Your task to perform on an android device: toggle priority inbox in the gmail app Image 0: 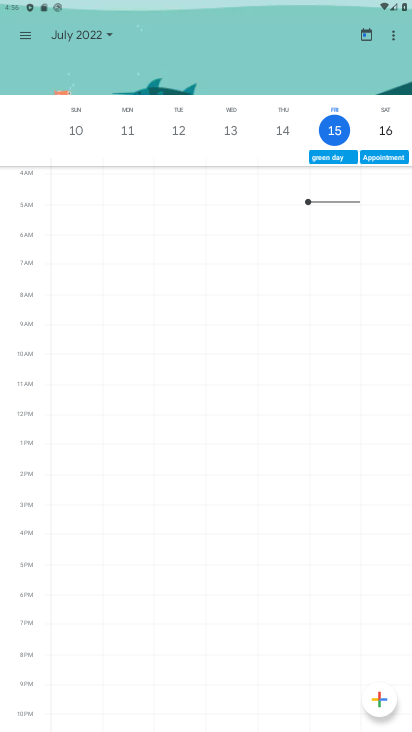
Step 0: press home button
Your task to perform on an android device: toggle priority inbox in the gmail app Image 1: 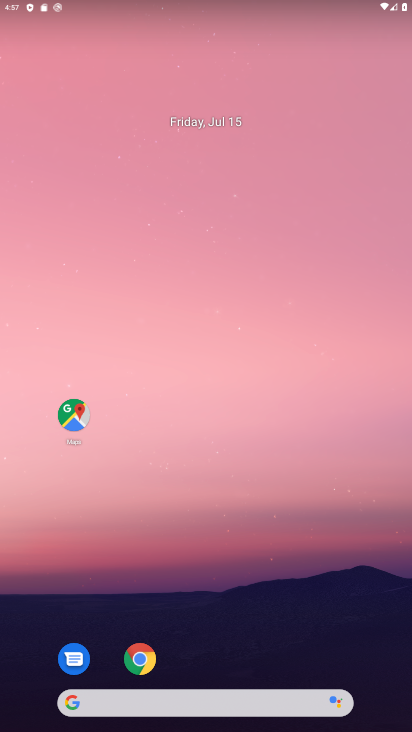
Step 1: drag from (236, 677) to (199, 149)
Your task to perform on an android device: toggle priority inbox in the gmail app Image 2: 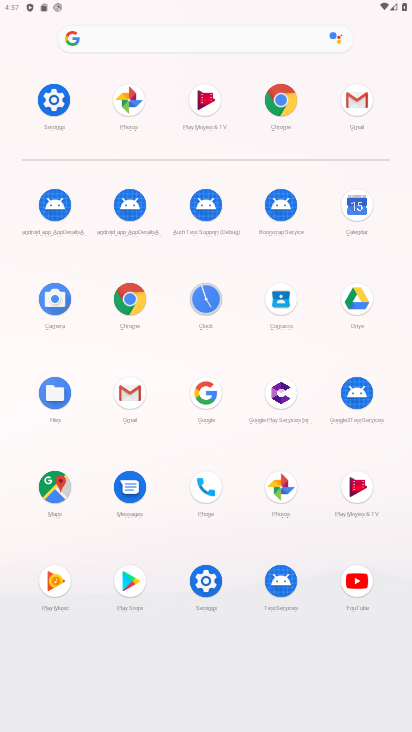
Step 2: click (357, 109)
Your task to perform on an android device: toggle priority inbox in the gmail app Image 3: 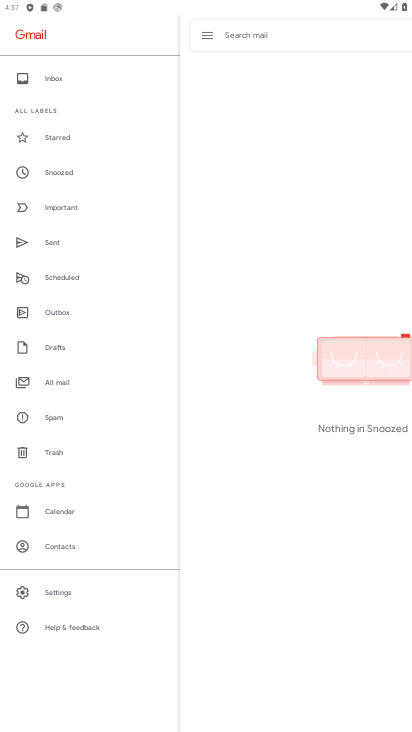
Step 3: click (67, 602)
Your task to perform on an android device: toggle priority inbox in the gmail app Image 4: 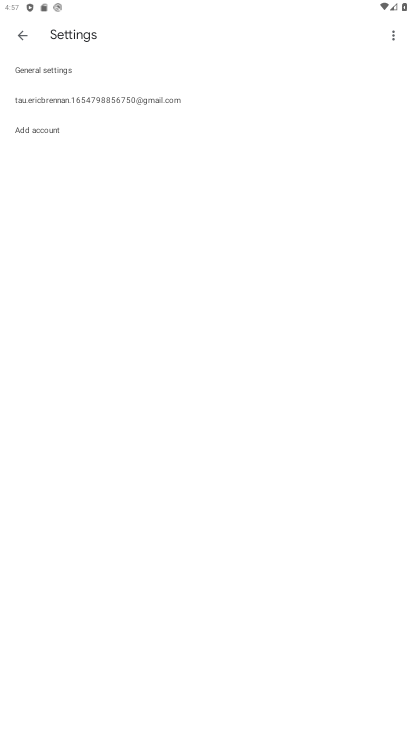
Step 4: click (170, 113)
Your task to perform on an android device: toggle priority inbox in the gmail app Image 5: 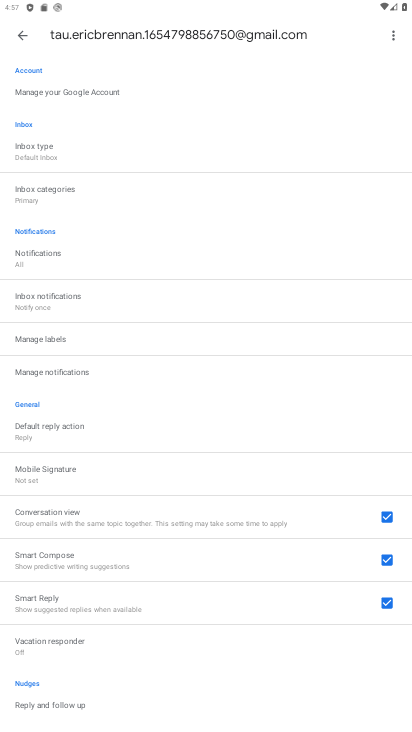
Step 5: click (75, 150)
Your task to perform on an android device: toggle priority inbox in the gmail app Image 6: 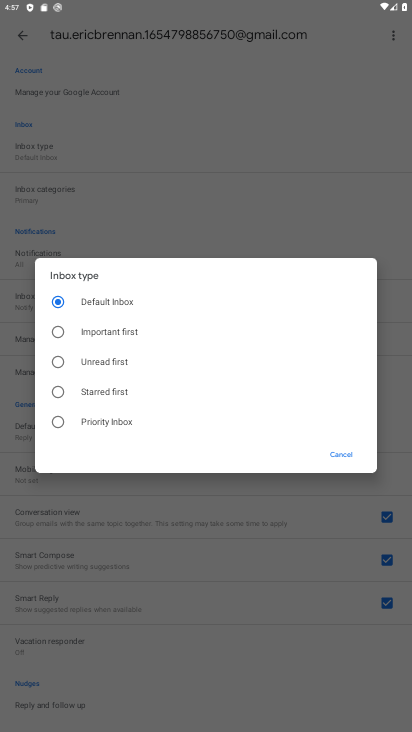
Step 6: click (93, 420)
Your task to perform on an android device: toggle priority inbox in the gmail app Image 7: 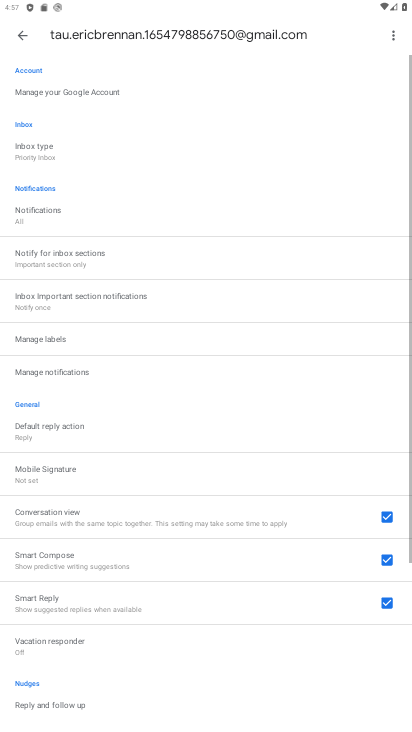
Step 7: task complete